Your task to perform on an android device: manage bookmarks in the chrome app Image 0: 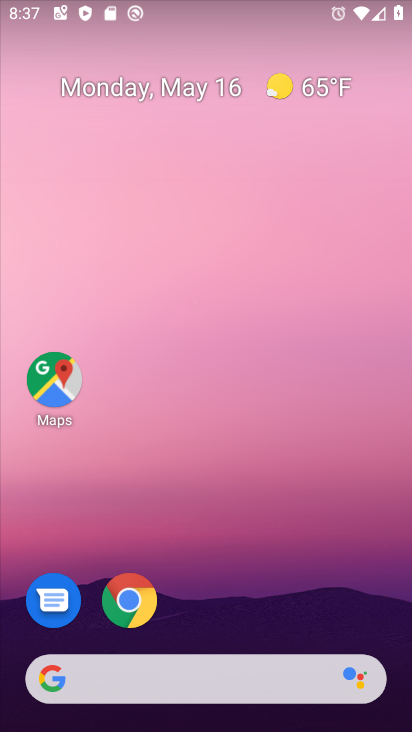
Step 0: drag from (378, 78) to (303, 96)
Your task to perform on an android device: manage bookmarks in the chrome app Image 1: 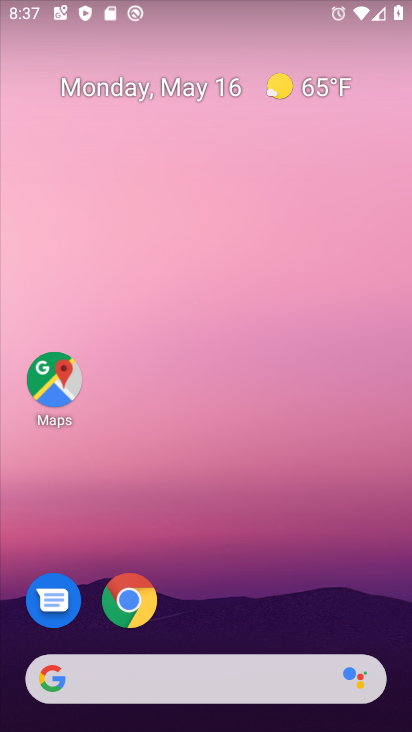
Step 1: click (128, 600)
Your task to perform on an android device: manage bookmarks in the chrome app Image 2: 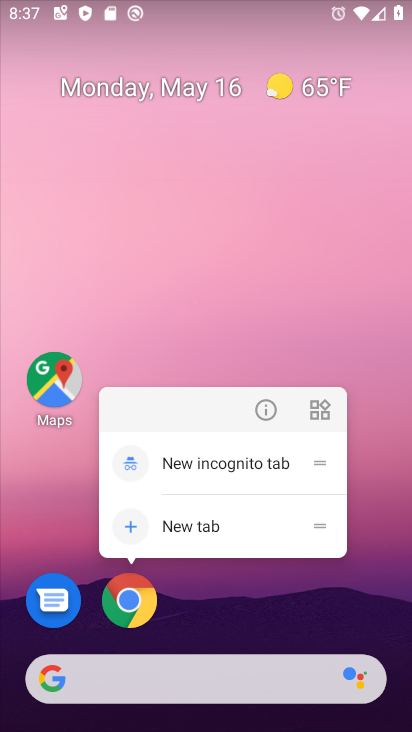
Step 2: click (276, 417)
Your task to perform on an android device: manage bookmarks in the chrome app Image 3: 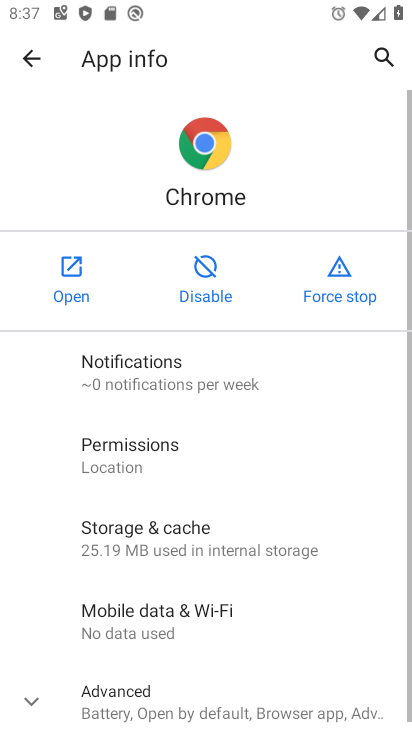
Step 3: click (83, 286)
Your task to perform on an android device: manage bookmarks in the chrome app Image 4: 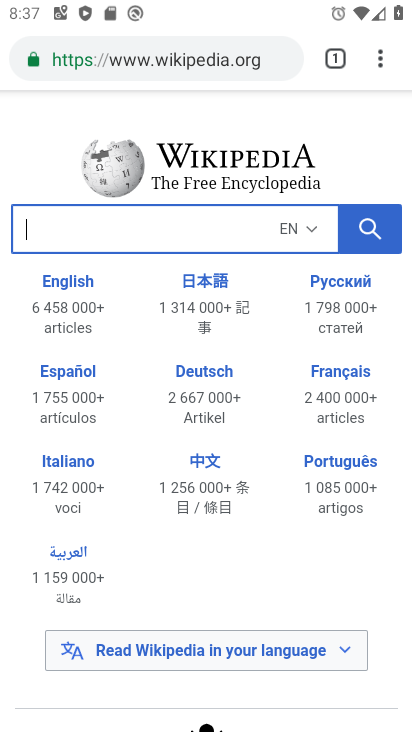
Step 4: drag from (377, 69) to (232, 214)
Your task to perform on an android device: manage bookmarks in the chrome app Image 5: 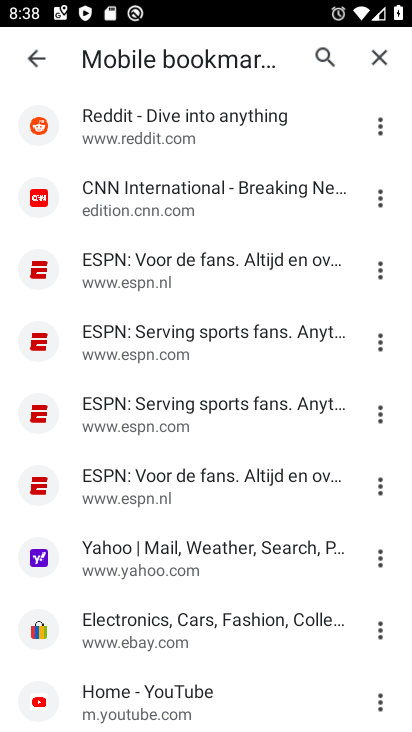
Step 5: drag from (307, 676) to (371, 222)
Your task to perform on an android device: manage bookmarks in the chrome app Image 6: 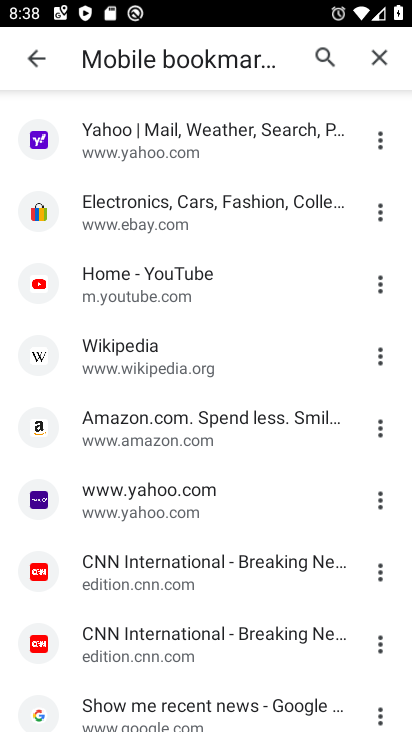
Step 6: drag from (297, 177) to (361, 723)
Your task to perform on an android device: manage bookmarks in the chrome app Image 7: 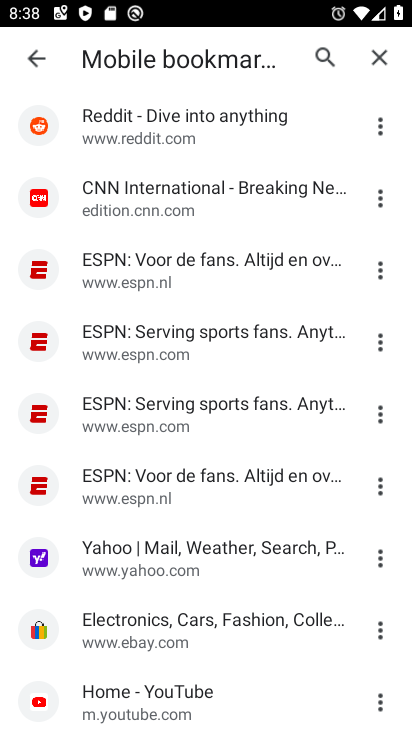
Step 7: click (379, 200)
Your task to perform on an android device: manage bookmarks in the chrome app Image 8: 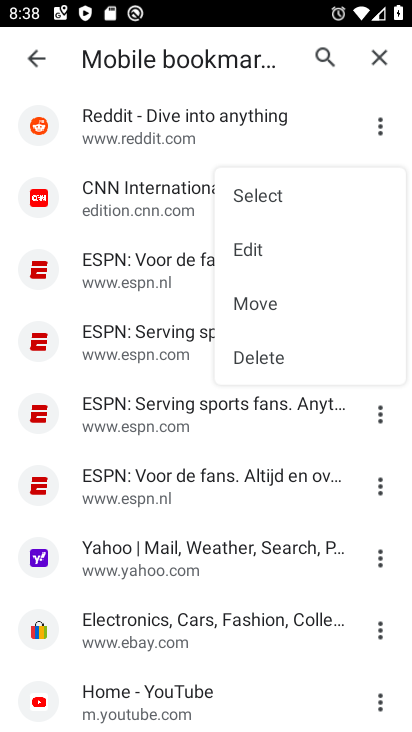
Step 8: click (289, 344)
Your task to perform on an android device: manage bookmarks in the chrome app Image 9: 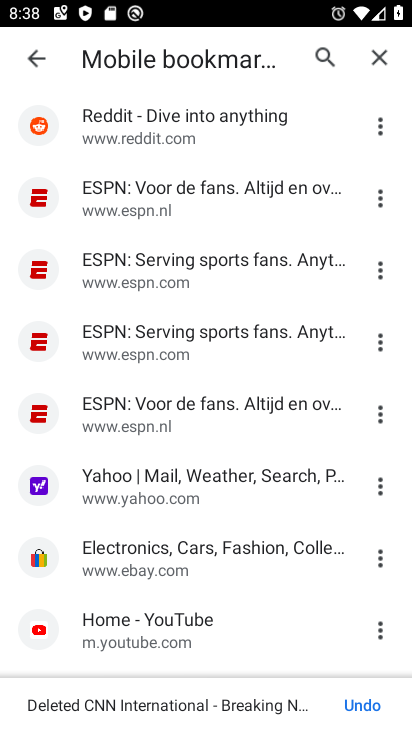
Step 9: task complete